Your task to perform on an android device: Open Google Image 0: 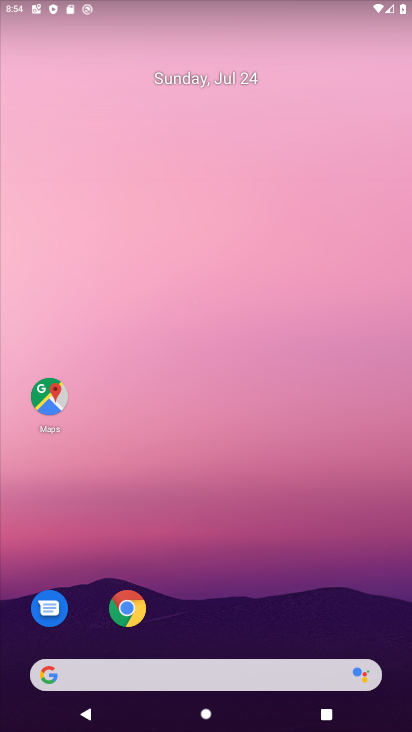
Step 0: click (44, 672)
Your task to perform on an android device: Open Google Image 1: 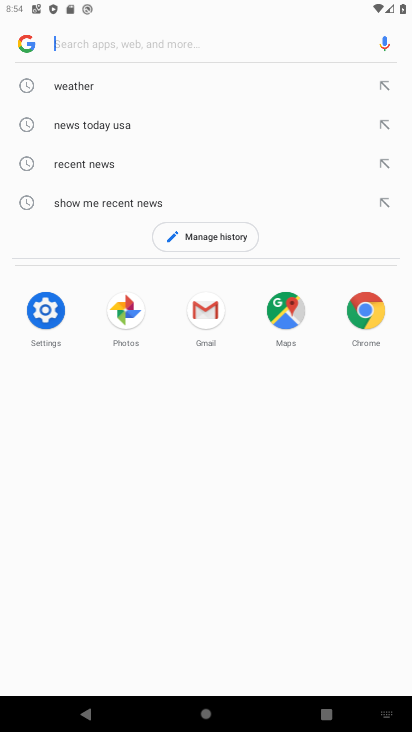
Step 1: click (19, 42)
Your task to perform on an android device: Open Google Image 2: 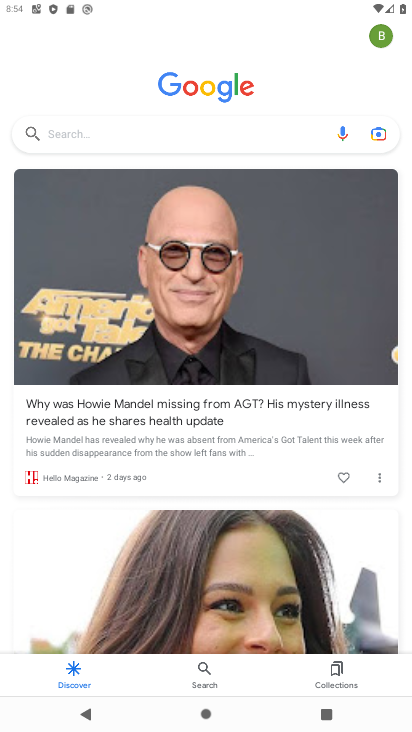
Step 2: task complete